Your task to perform on an android device: find photos in the google photos app Image 0: 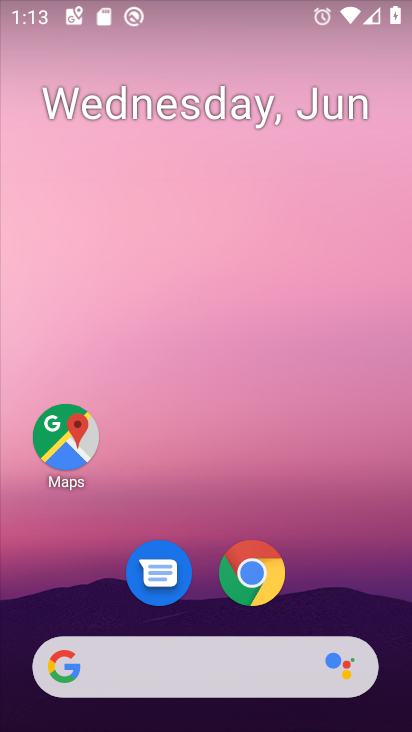
Step 0: drag from (197, 588) to (265, 55)
Your task to perform on an android device: find photos in the google photos app Image 1: 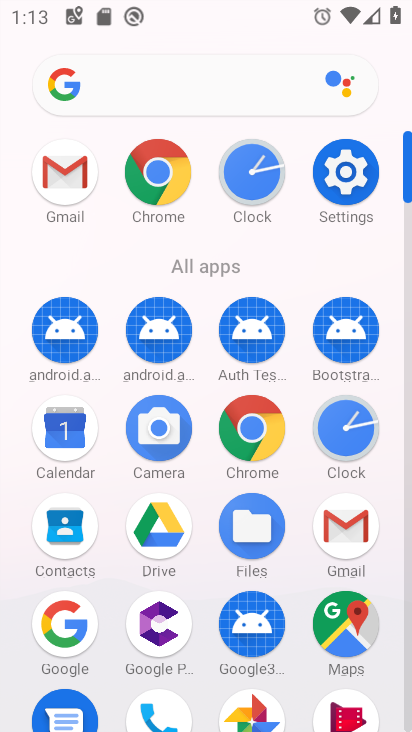
Step 1: click (254, 724)
Your task to perform on an android device: find photos in the google photos app Image 2: 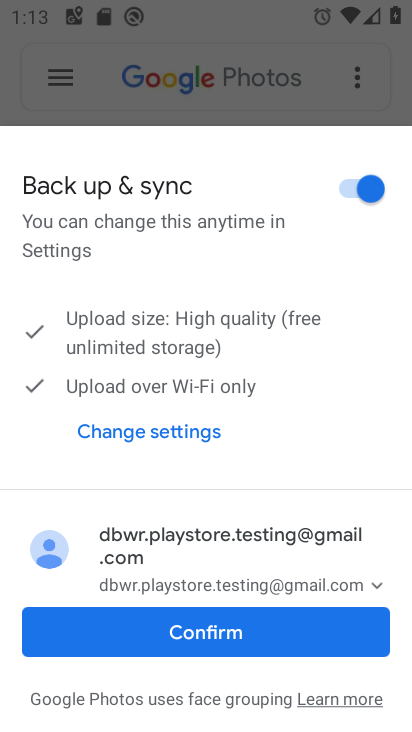
Step 2: click (177, 638)
Your task to perform on an android device: find photos in the google photos app Image 3: 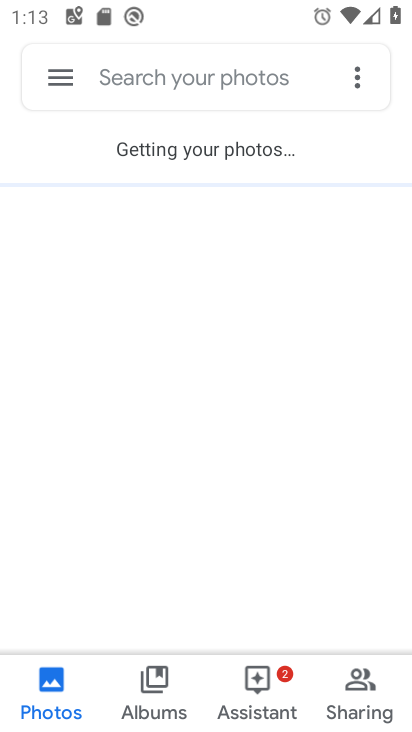
Step 3: task complete